Your task to perform on an android device: Open maps Image 0: 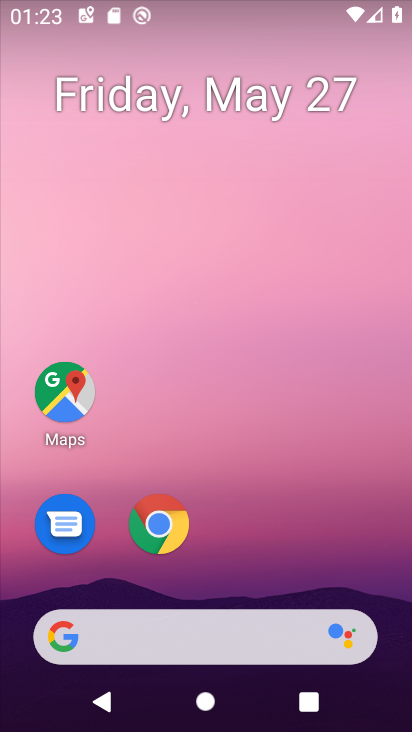
Step 0: click (65, 401)
Your task to perform on an android device: Open maps Image 1: 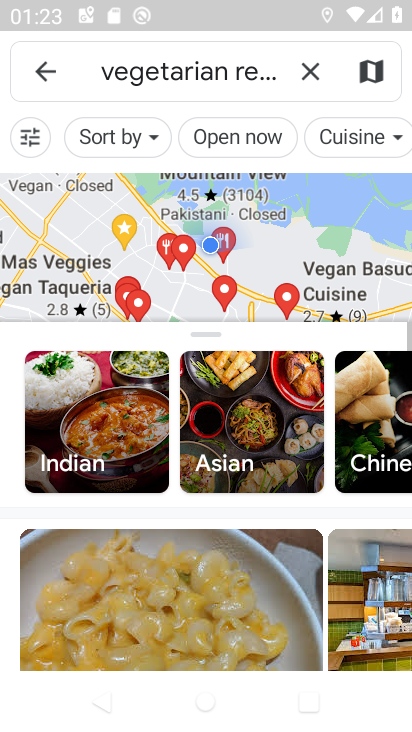
Step 1: click (300, 65)
Your task to perform on an android device: Open maps Image 2: 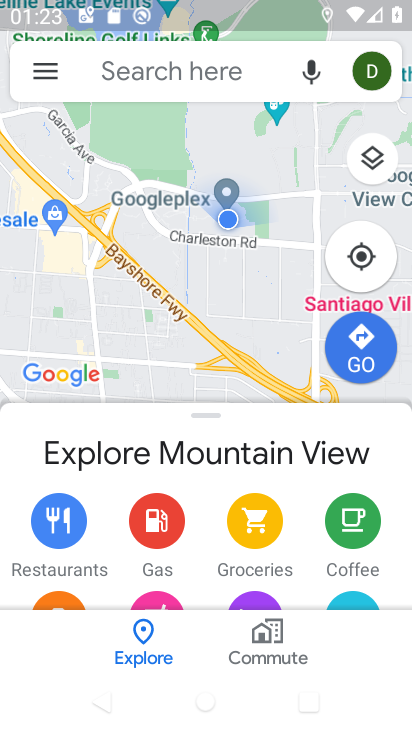
Step 2: task complete